Your task to perform on an android device: Turn off the flashlight Image 0: 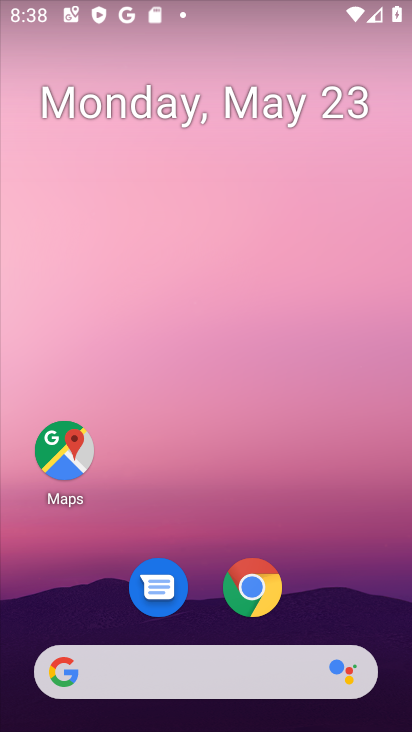
Step 0: drag from (171, 276) to (207, 96)
Your task to perform on an android device: Turn off the flashlight Image 1: 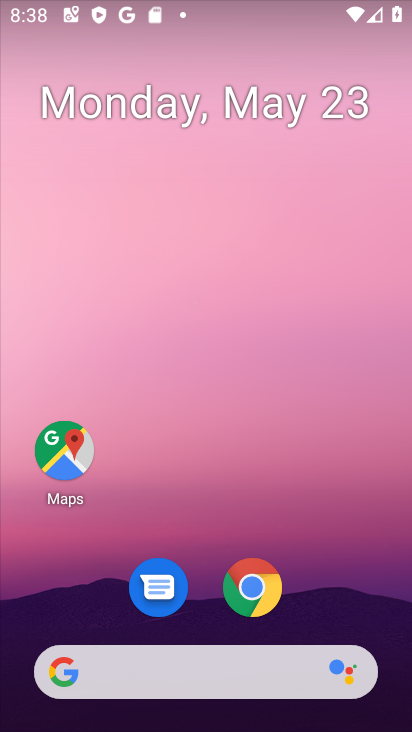
Step 1: drag from (215, 587) to (214, 15)
Your task to perform on an android device: Turn off the flashlight Image 2: 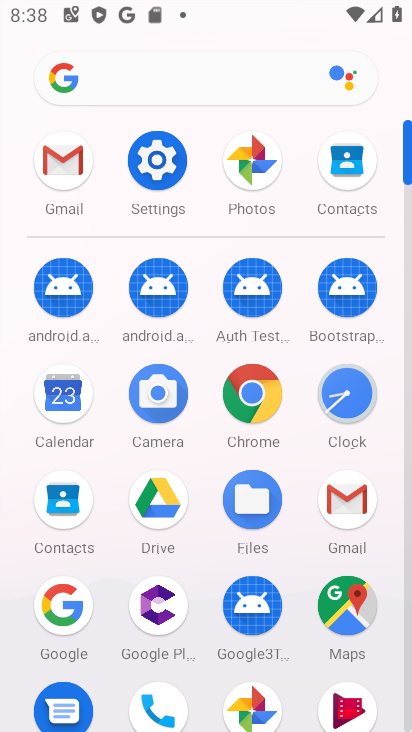
Step 2: click (161, 150)
Your task to perform on an android device: Turn off the flashlight Image 3: 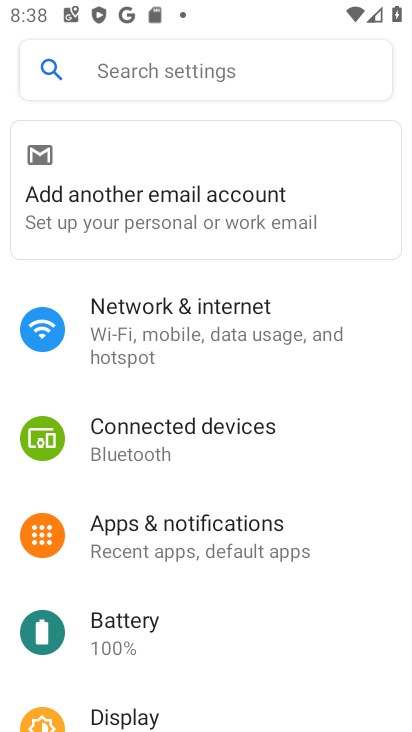
Step 3: click (168, 74)
Your task to perform on an android device: Turn off the flashlight Image 4: 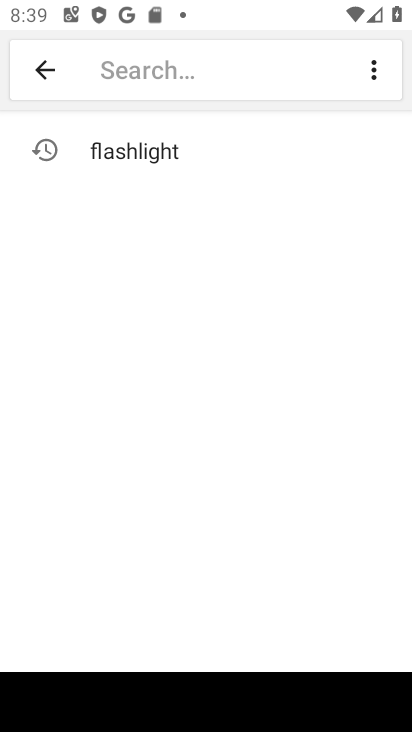
Step 4: type "flashlight"
Your task to perform on an android device: Turn off the flashlight Image 5: 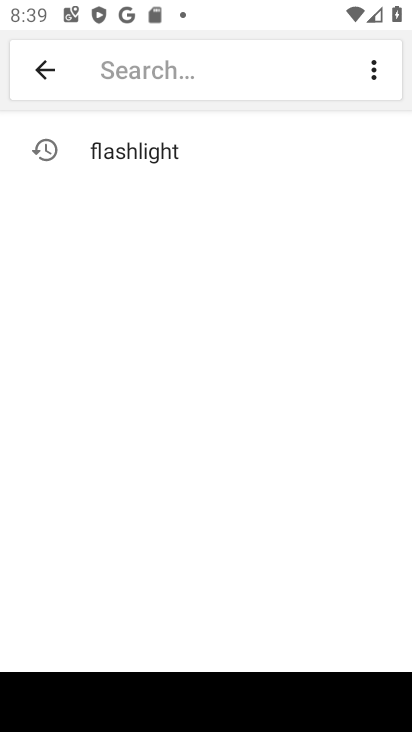
Step 5: click (156, 158)
Your task to perform on an android device: Turn off the flashlight Image 6: 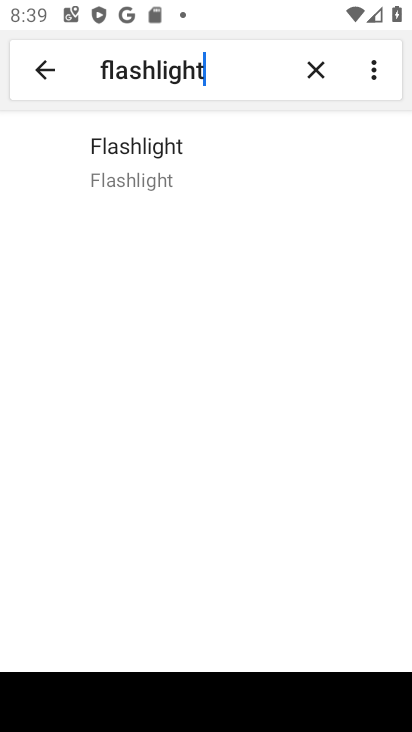
Step 6: task complete